Your task to perform on an android device: make emails show in primary in the gmail app Image 0: 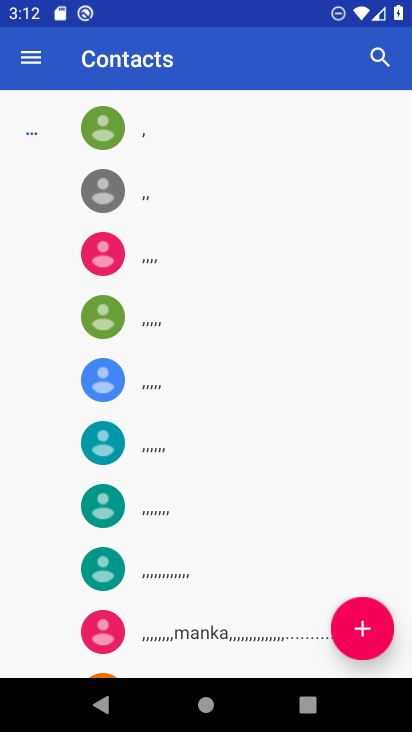
Step 0: press home button
Your task to perform on an android device: make emails show in primary in the gmail app Image 1: 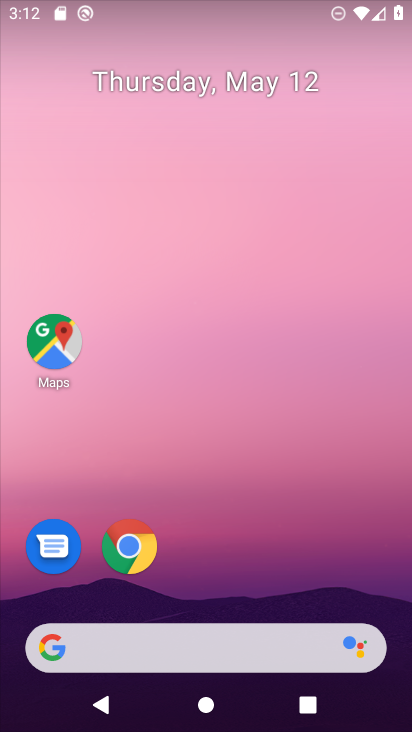
Step 1: drag from (275, 434) to (275, 351)
Your task to perform on an android device: make emails show in primary in the gmail app Image 2: 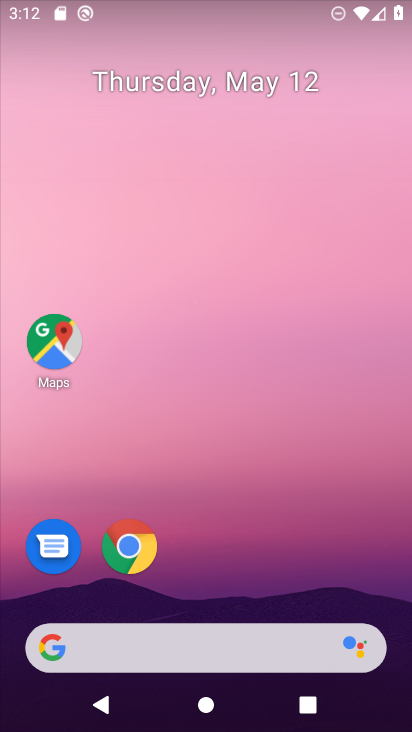
Step 2: drag from (224, 592) to (242, 199)
Your task to perform on an android device: make emails show in primary in the gmail app Image 3: 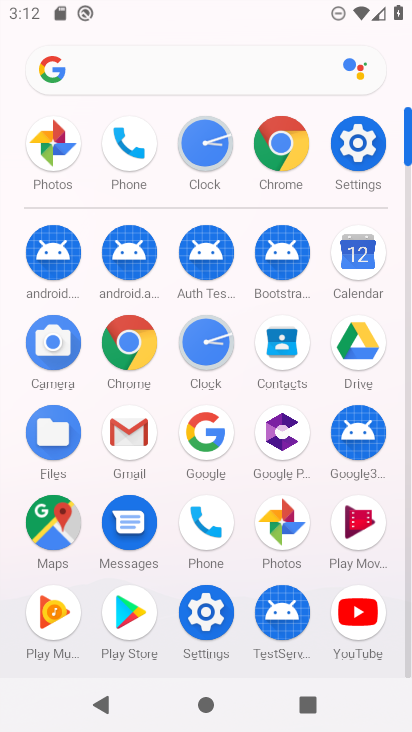
Step 3: click (137, 423)
Your task to perform on an android device: make emails show in primary in the gmail app Image 4: 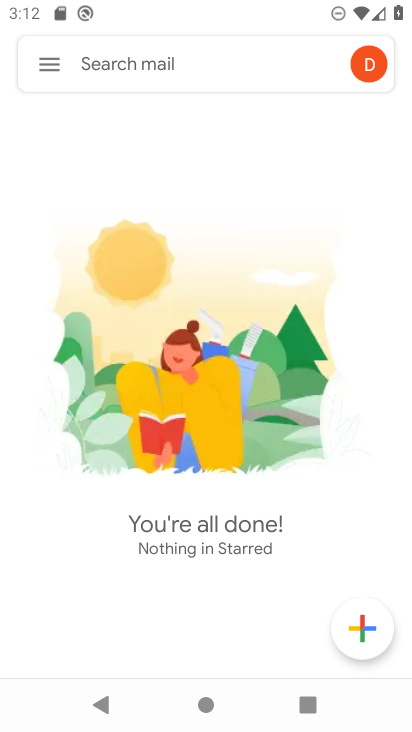
Step 4: click (50, 57)
Your task to perform on an android device: make emails show in primary in the gmail app Image 5: 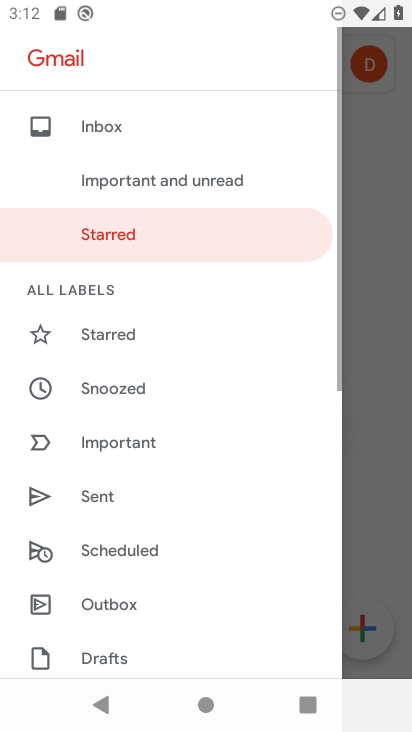
Step 5: drag from (147, 565) to (186, 82)
Your task to perform on an android device: make emails show in primary in the gmail app Image 6: 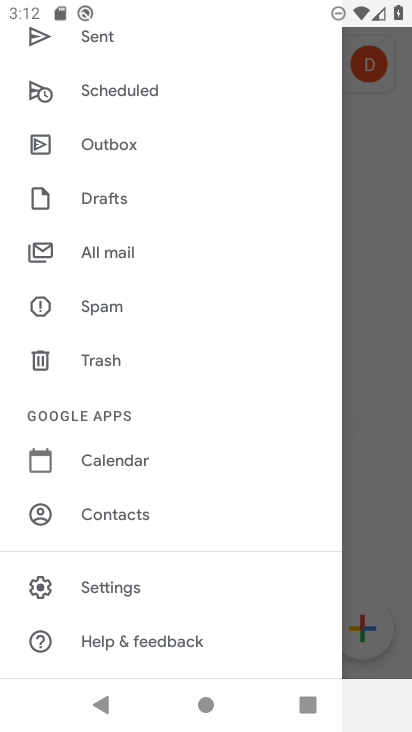
Step 6: click (106, 583)
Your task to perform on an android device: make emails show in primary in the gmail app Image 7: 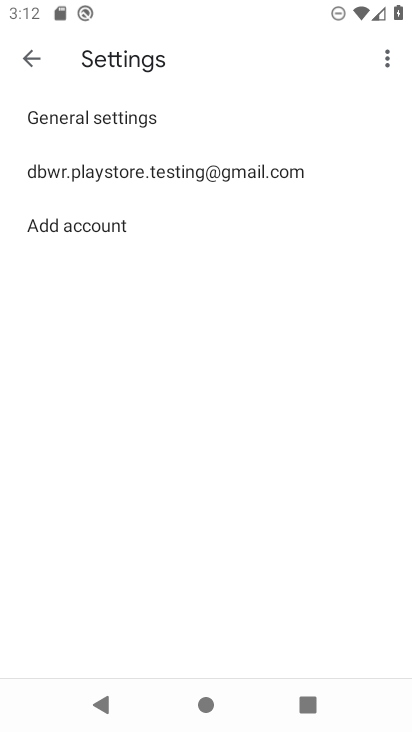
Step 7: click (94, 166)
Your task to perform on an android device: make emails show in primary in the gmail app Image 8: 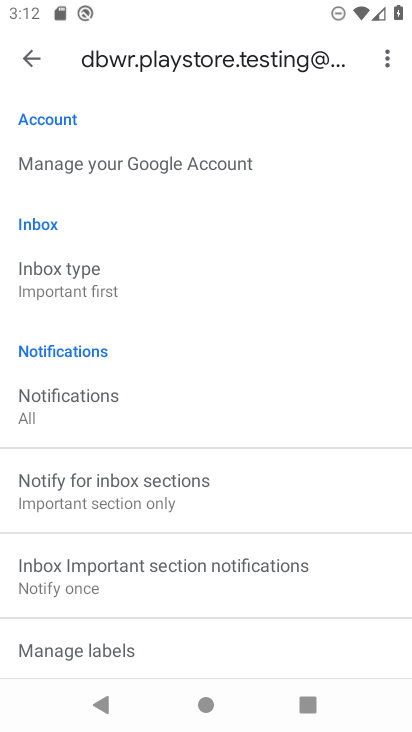
Step 8: drag from (120, 528) to (165, 178)
Your task to perform on an android device: make emails show in primary in the gmail app Image 9: 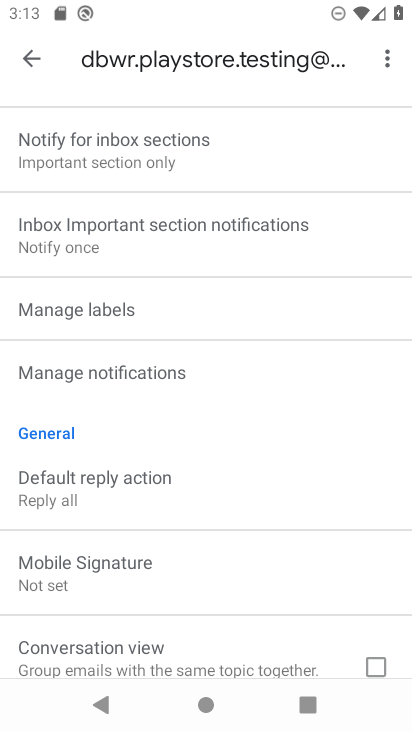
Step 9: drag from (167, 523) to (217, 192)
Your task to perform on an android device: make emails show in primary in the gmail app Image 10: 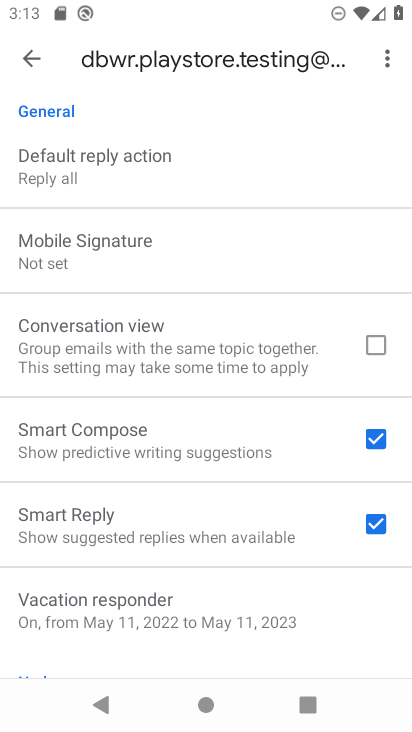
Step 10: click (373, 351)
Your task to perform on an android device: make emails show in primary in the gmail app Image 11: 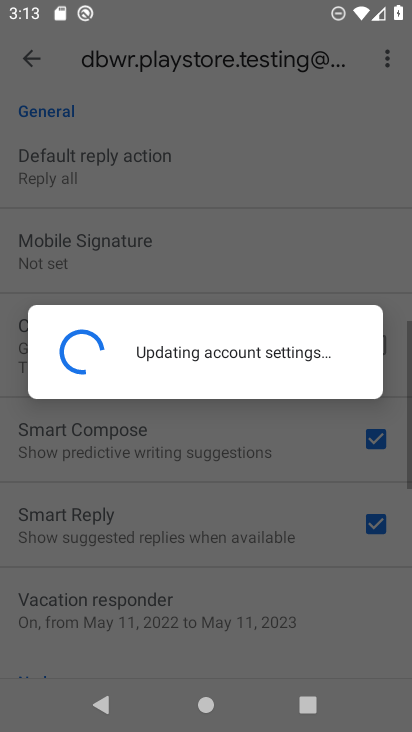
Step 11: click (357, 343)
Your task to perform on an android device: make emails show in primary in the gmail app Image 12: 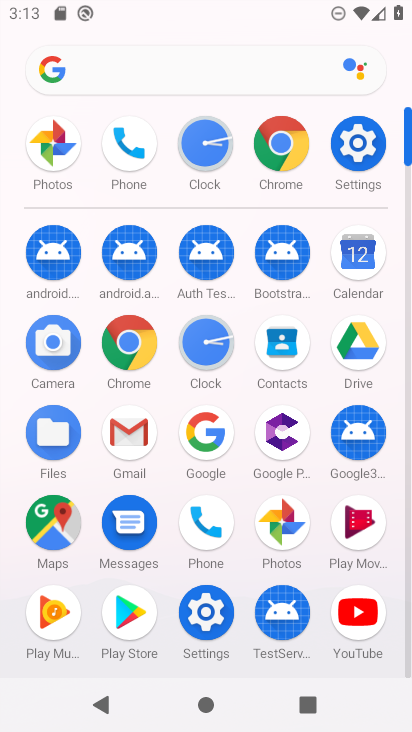
Step 12: click (128, 418)
Your task to perform on an android device: make emails show in primary in the gmail app Image 13: 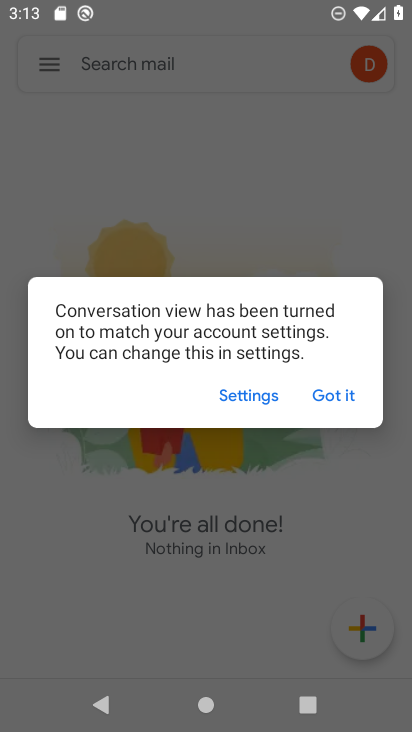
Step 13: click (348, 388)
Your task to perform on an android device: make emails show in primary in the gmail app Image 14: 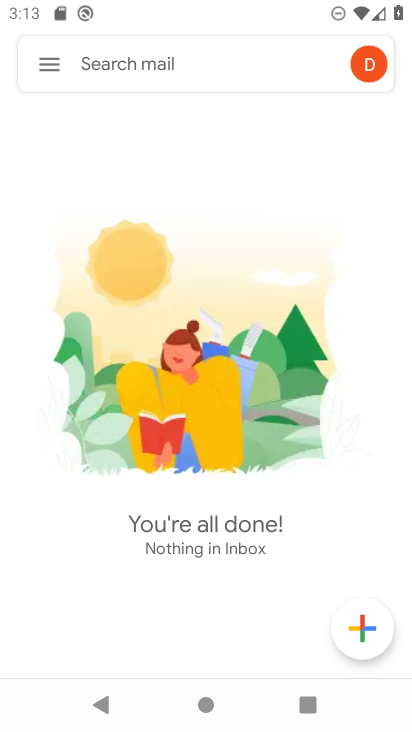
Step 14: click (44, 61)
Your task to perform on an android device: make emails show in primary in the gmail app Image 15: 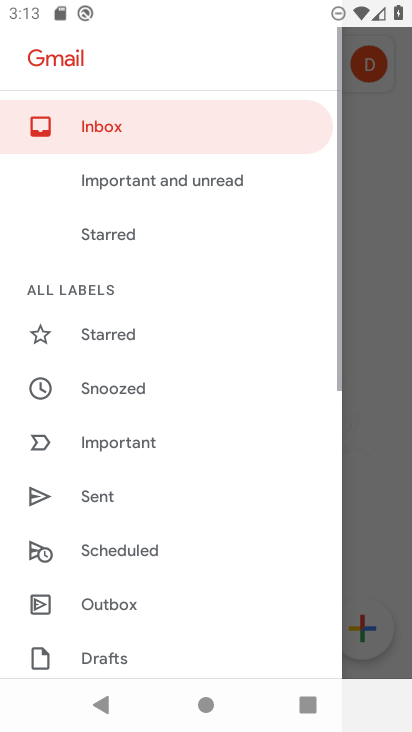
Step 15: drag from (158, 566) to (245, 161)
Your task to perform on an android device: make emails show in primary in the gmail app Image 16: 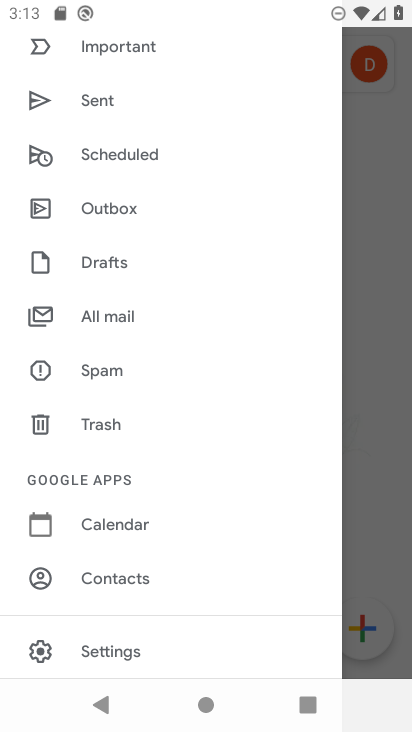
Step 16: drag from (115, 609) to (186, 355)
Your task to perform on an android device: make emails show in primary in the gmail app Image 17: 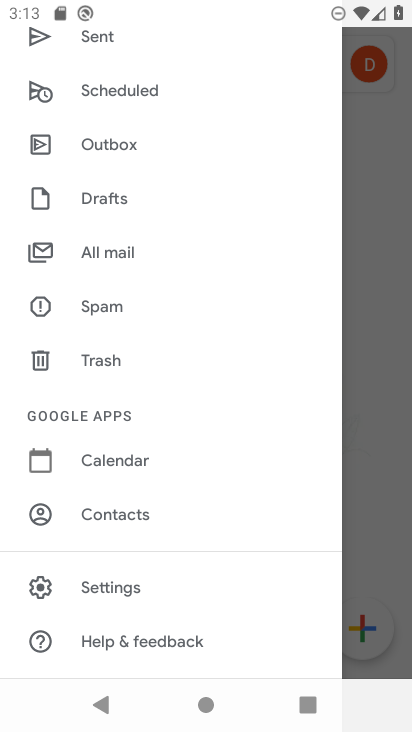
Step 17: click (110, 583)
Your task to perform on an android device: make emails show in primary in the gmail app Image 18: 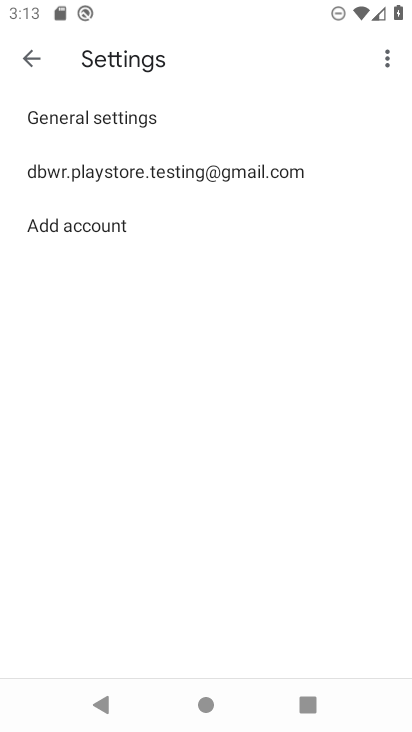
Step 18: click (152, 171)
Your task to perform on an android device: make emails show in primary in the gmail app Image 19: 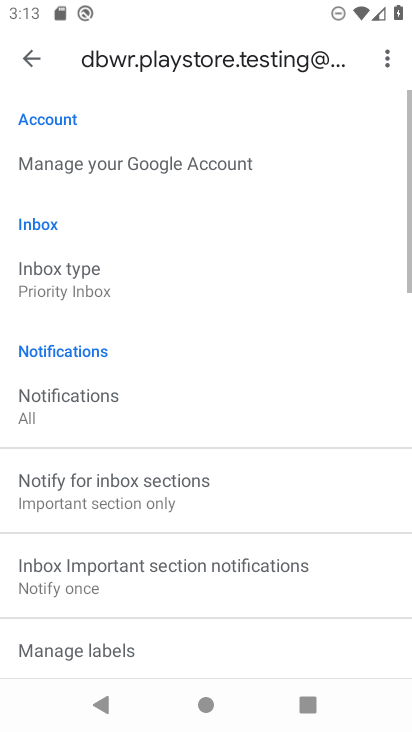
Step 19: task complete